Your task to perform on an android device: open app "Expedia: Hotels, Flights & Car" (install if not already installed) Image 0: 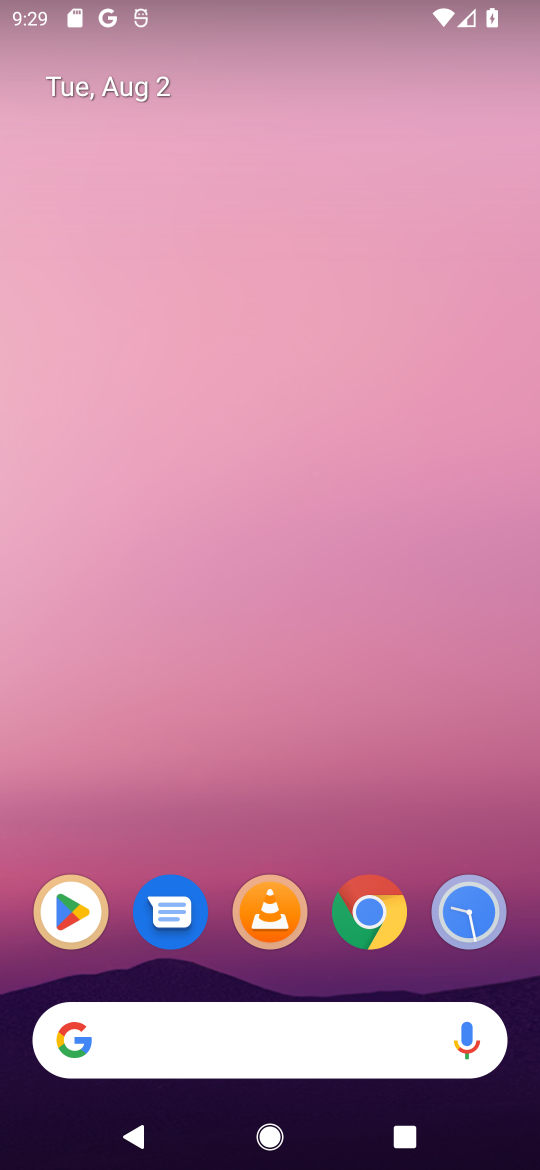
Step 0: click (68, 906)
Your task to perform on an android device: open app "Expedia: Hotels, Flights & Car" (install if not already installed) Image 1: 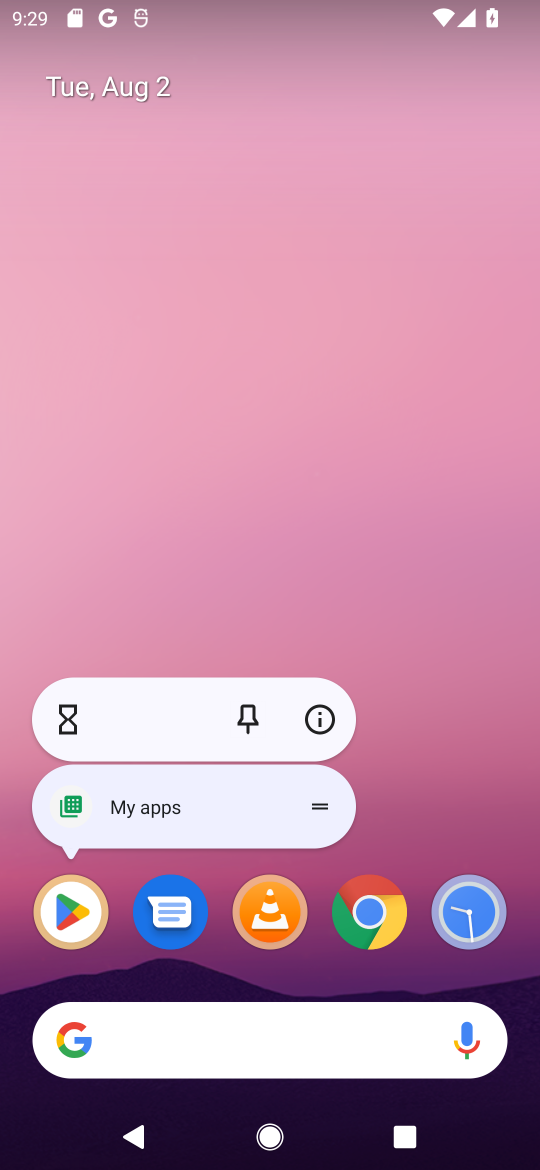
Step 1: click (75, 907)
Your task to perform on an android device: open app "Expedia: Hotels, Flights & Car" (install if not already installed) Image 2: 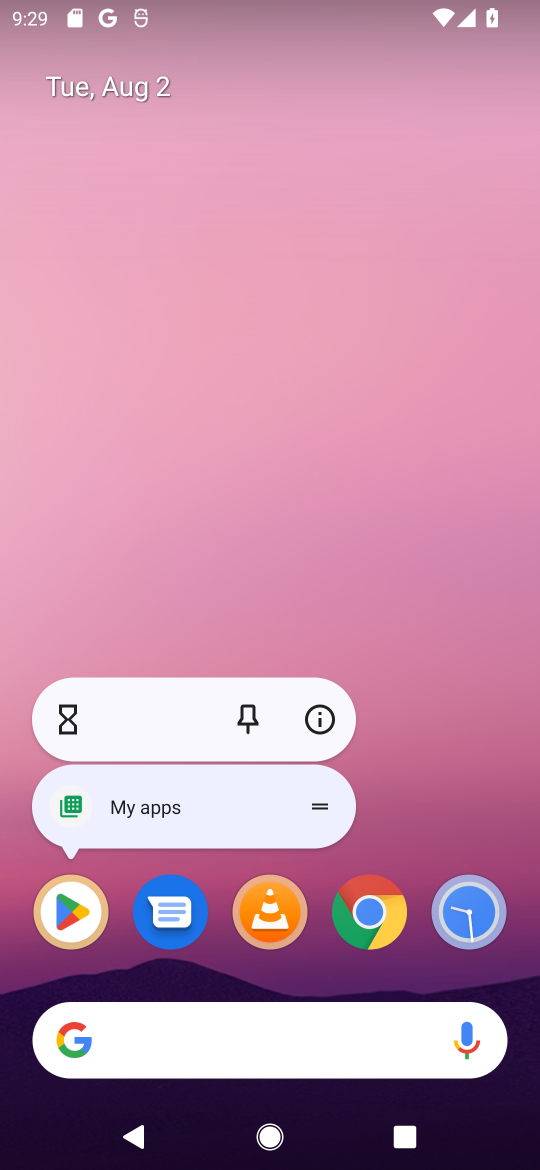
Step 2: click (72, 909)
Your task to perform on an android device: open app "Expedia: Hotels, Flights & Car" (install if not already installed) Image 3: 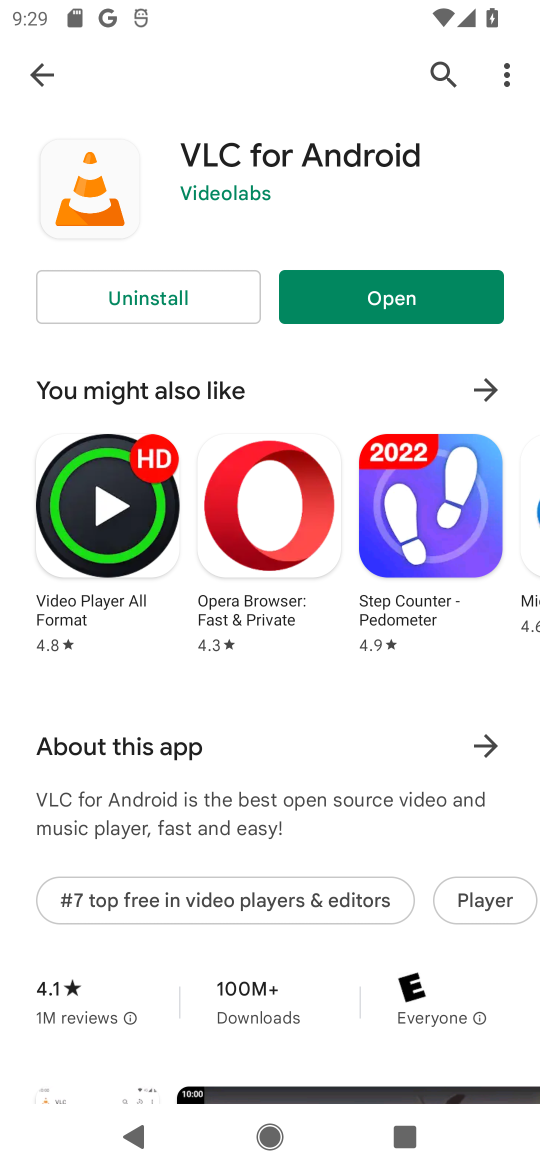
Step 3: click (424, 73)
Your task to perform on an android device: open app "Expedia: Hotels, Flights & Car" (install if not already installed) Image 4: 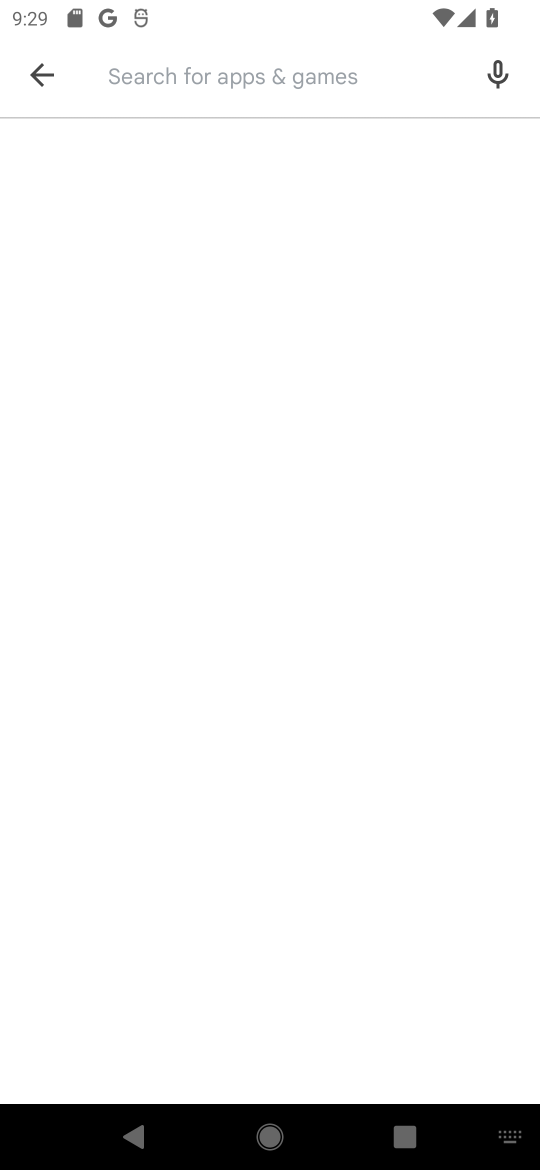
Step 4: type "Expedia: Hotels, Flights & Car"
Your task to perform on an android device: open app "Expedia: Hotels, Flights & Car" (install if not already installed) Image 5: 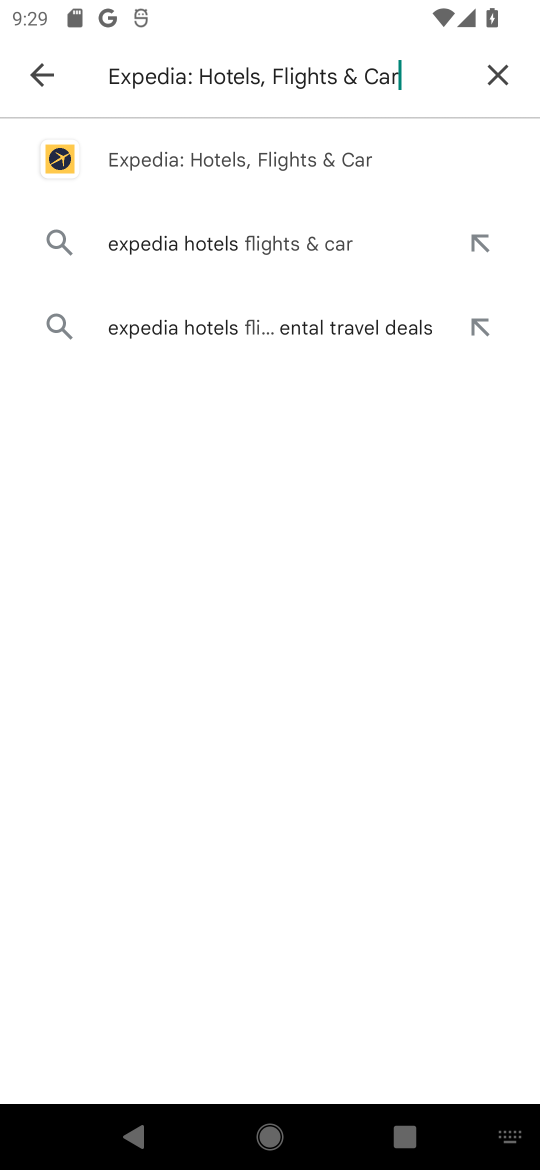
Step 5: click (262, 137)
Your task to perform on an android device: open app "Expedia: Hotels, Flights & Car" (install if not already installed) Image 6: 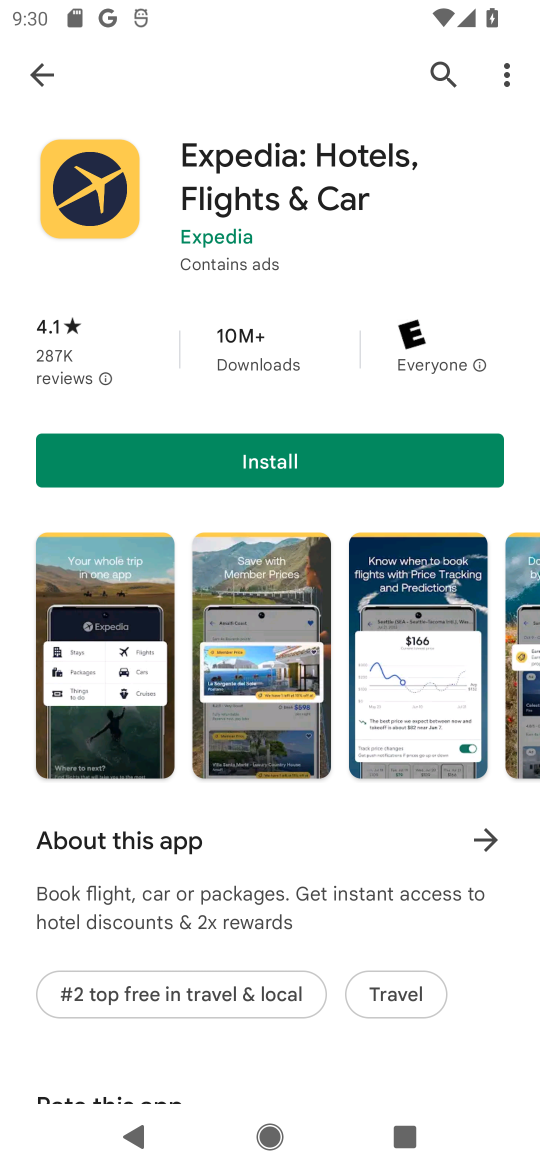
Step 6: click (317, 453)
Your task to perform on an android device: open app "Expedia: Hotels, Flights & Car" (install if not already installed) Image 7: 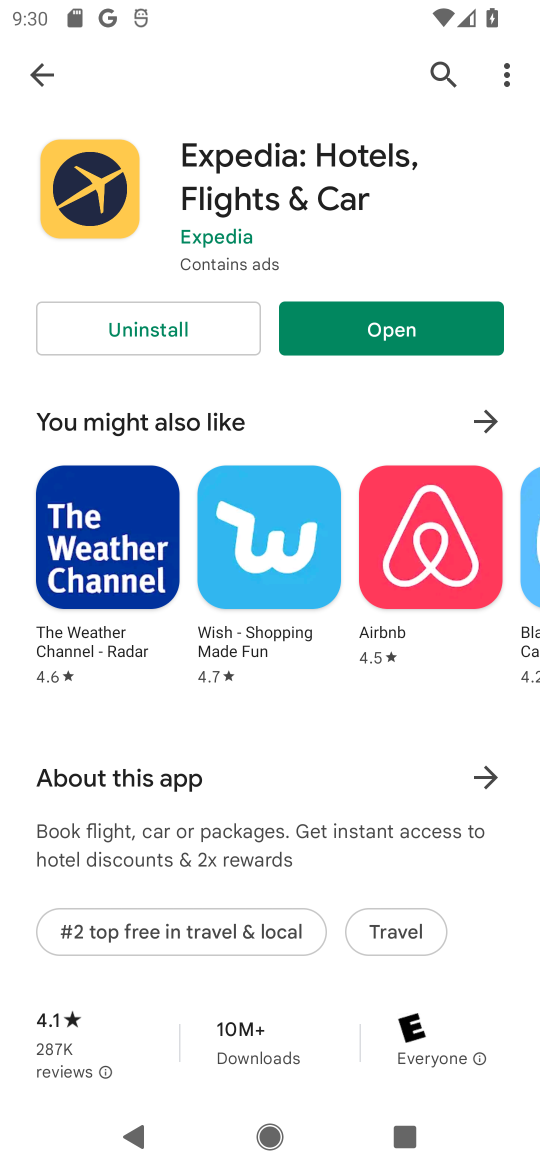
Step 7: click (397, 323)
Your task to perform on an android device: open app "Expedia: Hotels, Flights & Car" (install if not already installed) Image 8: 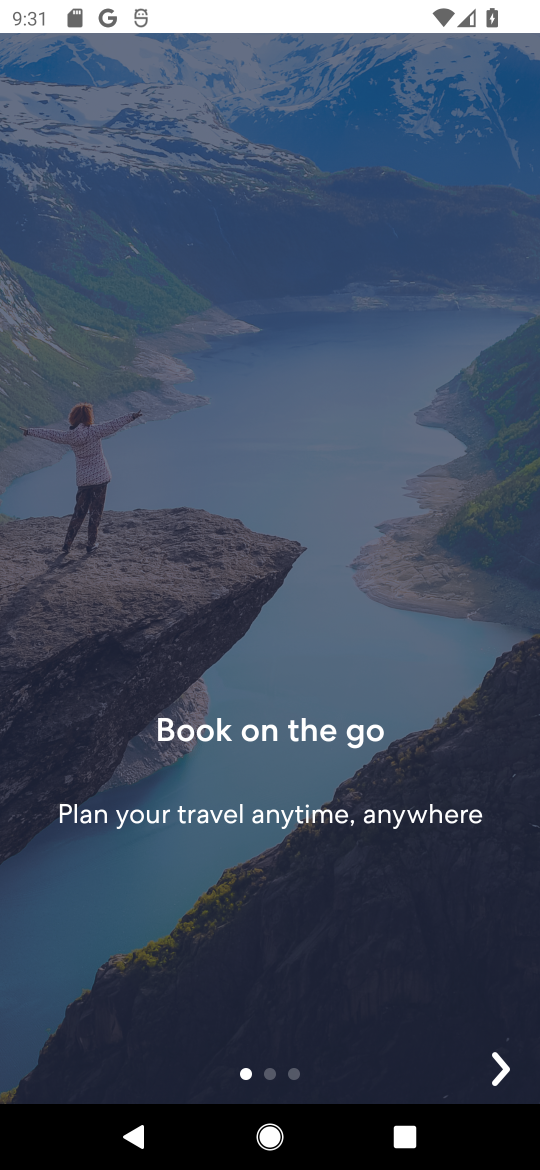
Step 8: click (490, 1065)
Your task to perform on an android device: open app "Expedia: Hotels, Flights & Car" (install if not already installed) Image 9: 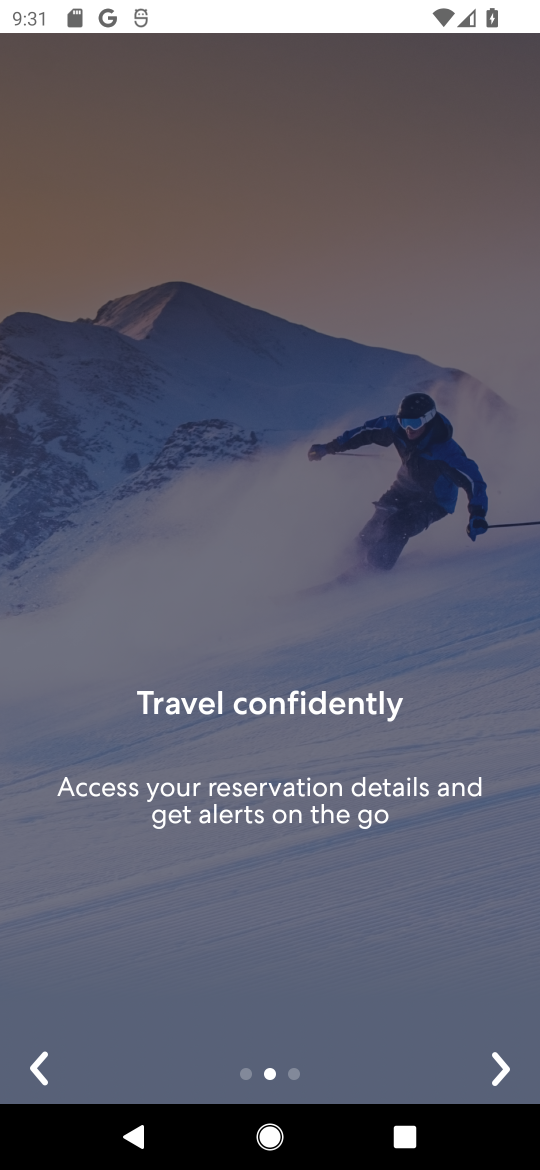
Step 9: click (491, 1065)
Your task to perform on an android device: open app "Expedia: Hotels, Flights & Car" (install if not already installed) Image 10: 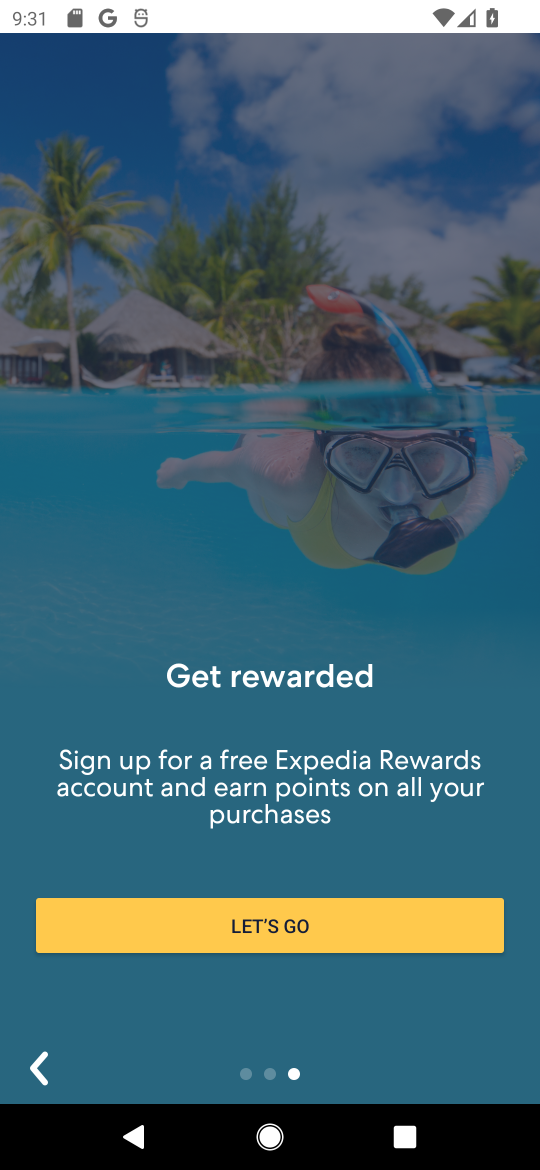
Step 10: click (300, 926)
Your task to perform on an android device: open app "Expedia: Hotels, Flights & Car" (install if not already installed) Image 11: 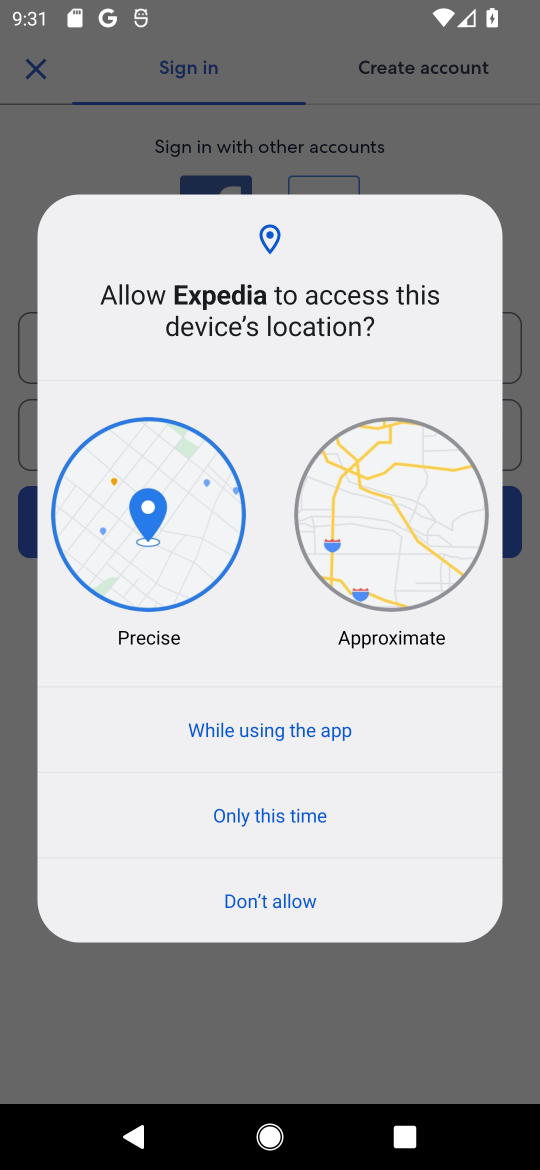
Step 11: click (244, 725)
Your task to perform on an android device: open app "Expedia: Hotels, Flights & Car" (install if not already installed) Image 12: 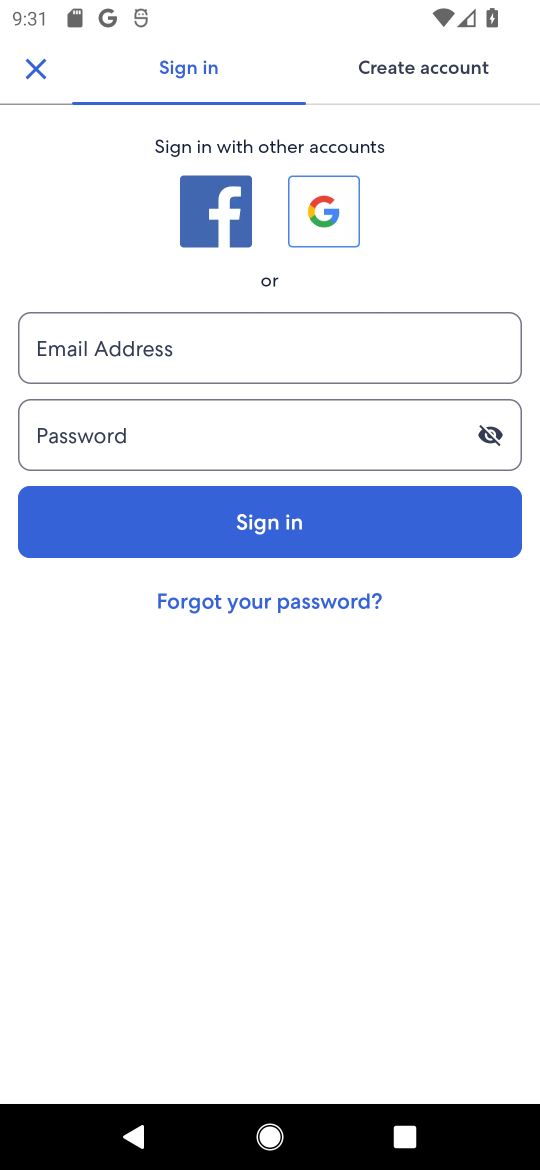
Step 12: click (328, 208)
Your task to perform on an android device: open app "Expedia: Hotels, Flights & Car" (install if not already installed) Image 13: 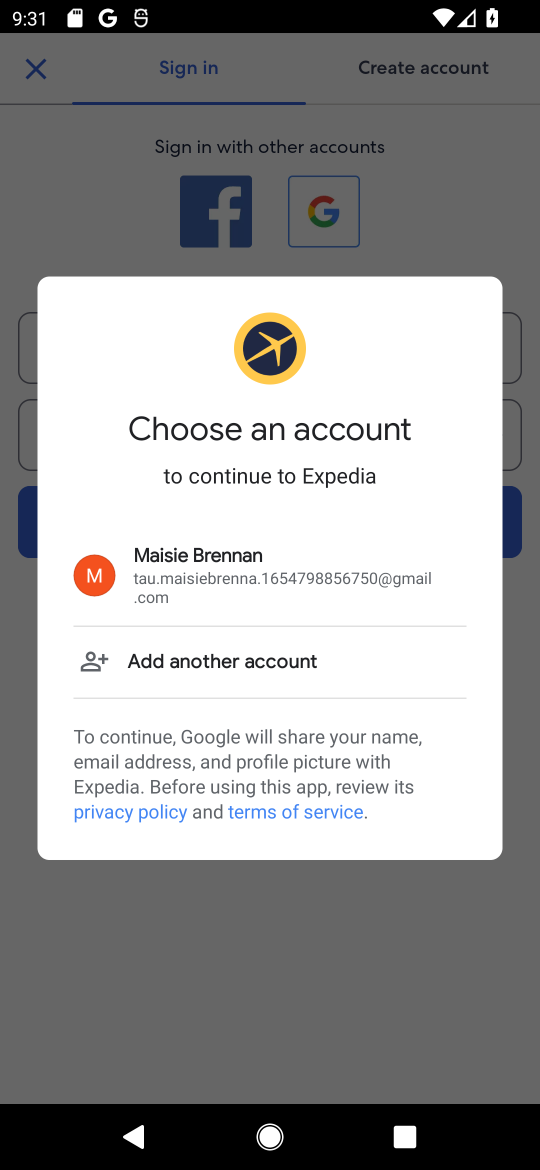
Step 13: click (219, 565)
Your task to perform on an android device: open app "Expedia: Hotels, Flights & Car" (install if not already installed) Image 14: 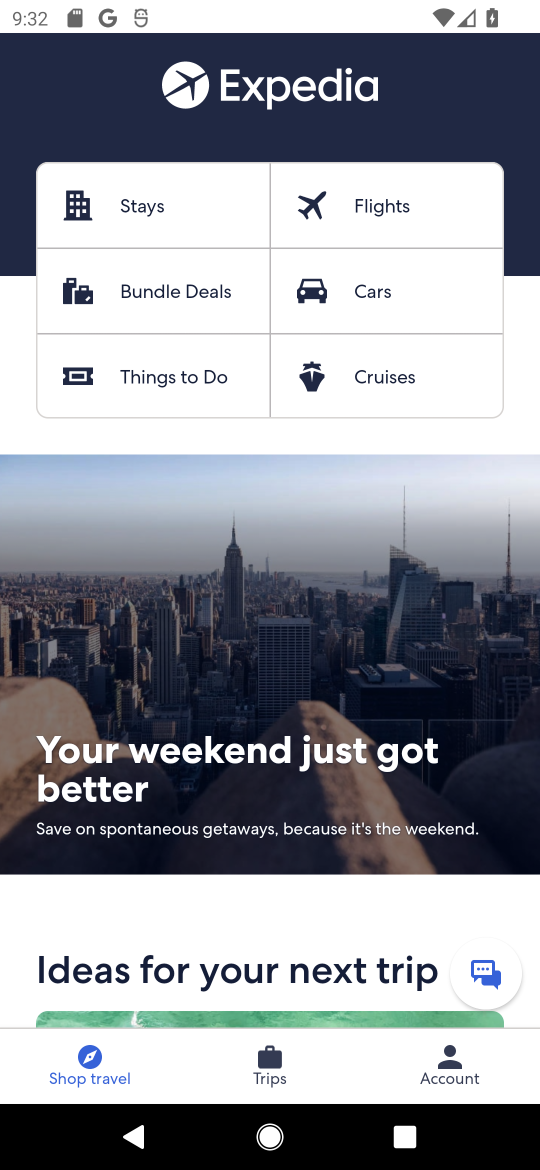
Step 14: task complete